Your task to perform on an android device: toggle pop-ups in chrome Image 0: 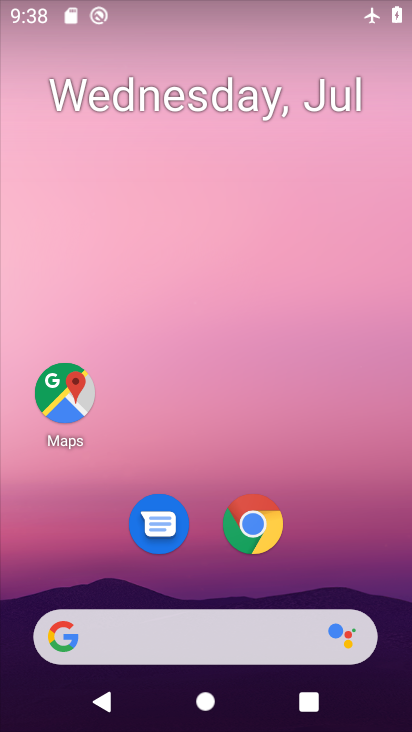
Step 0: click (261, 524)
Your task to perform on an android device: toggle pop-ups in chrome Image 1: 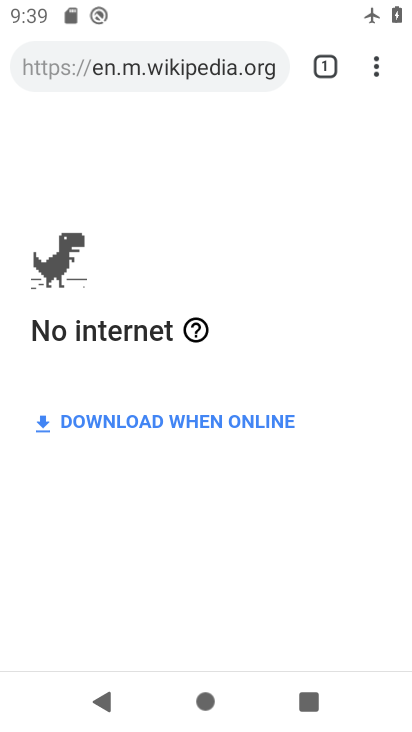
Step 1: click (375, 67)
Your task to perform on an android device: toggle pop-ups in chrome Image 2: 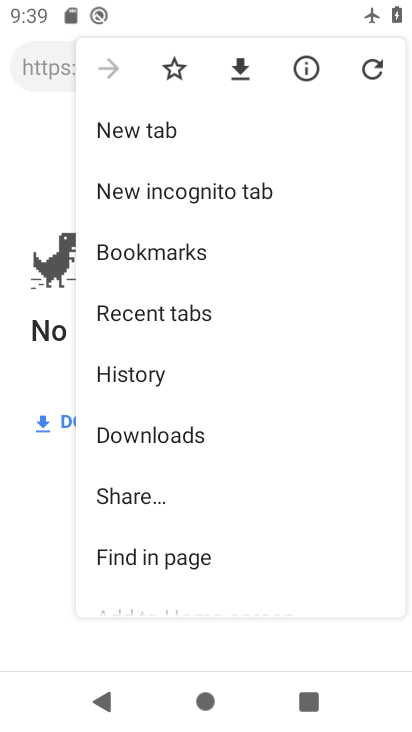
Step 2: drag from (280, 496) to (305, 128)
Your task to perform on an android device: toggle pop-ups in chrome Image 3: 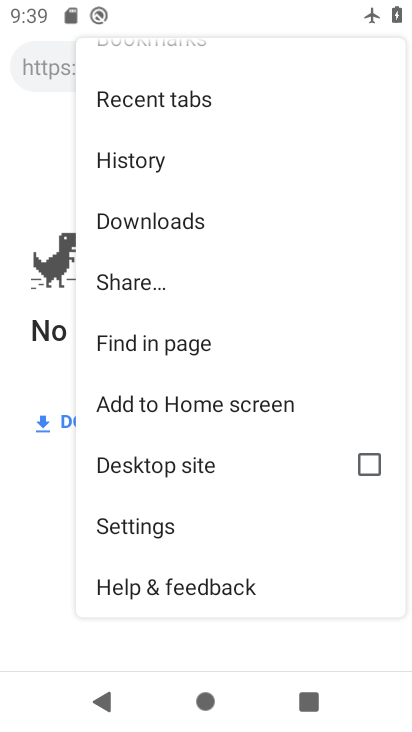
Step 3: click (163, 521)
Your task to perform on an android device: toggle pop-ups in chrome Image 4: 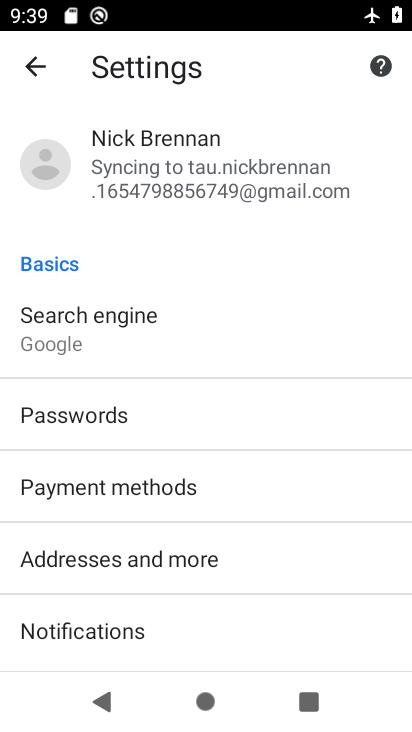
Step 4: drag from (249, 621) to (268, 168)
Your task to perform on an android device: toggle pop-ups in chrome Image 5: 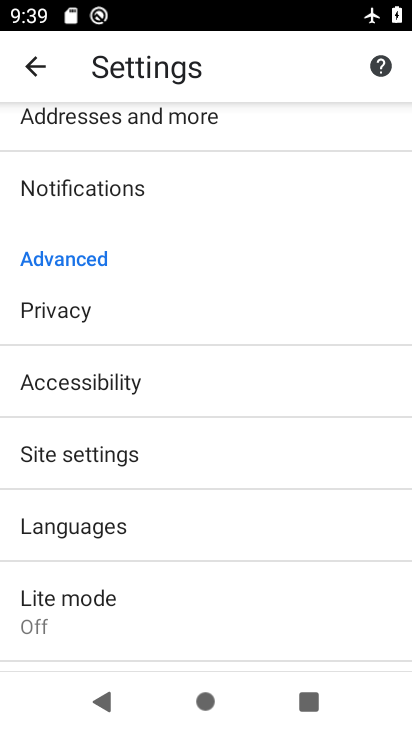
Step 5: click (109, 450)
Your task to perform on an android device: toggle pop-ups in chrome Image 6: 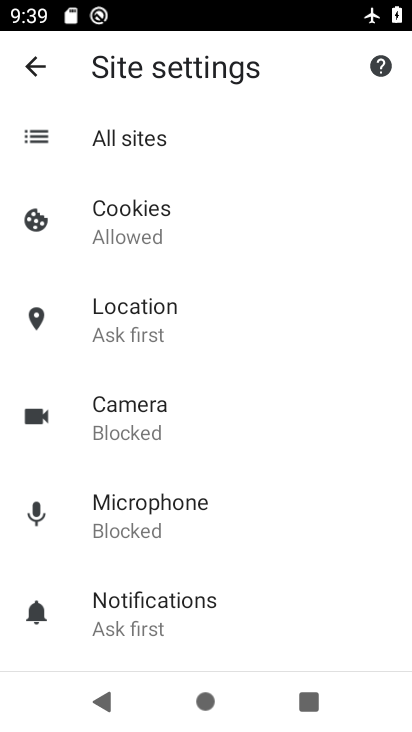
Step 6: drag from (237, 605) to (281, 271)
Your task to perform on an android device: toggle pop-ups in chrome Image 7: 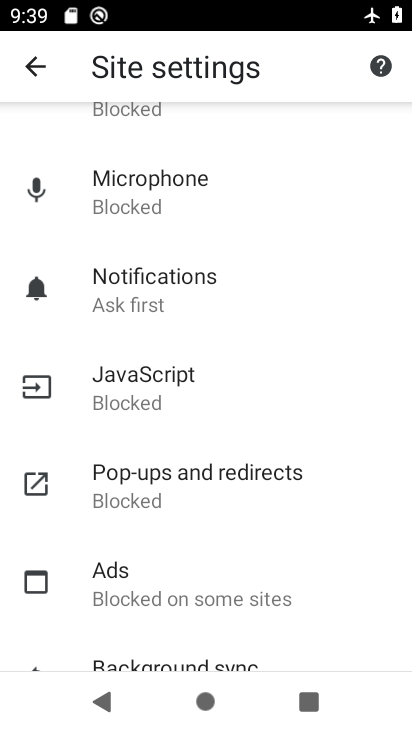
Step 7: click (212, 476)
Your task to perform on an android device: toggle pop-ups in chrome Image 8: 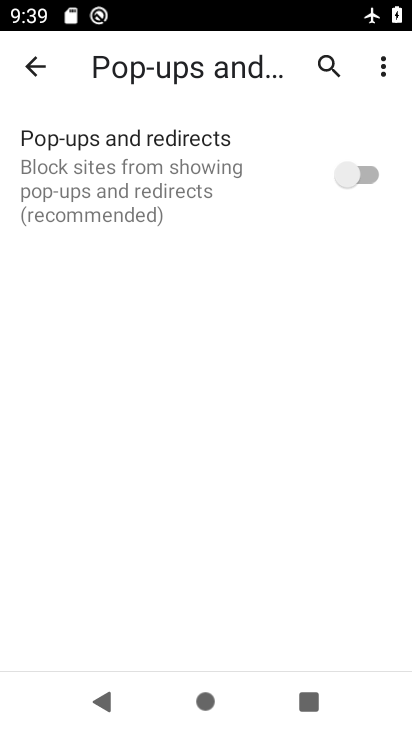
Step 8: click (358, 169)
Your task to perform on an android device: toggle pop-ups in chrome Image 9: 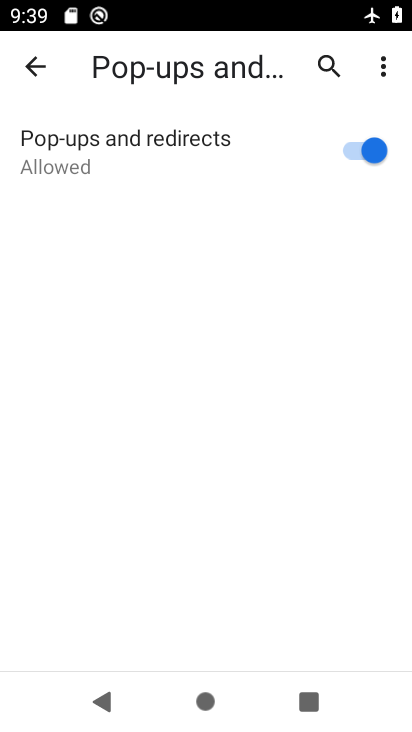
Step 9: task complete